Your task to perform on an android device: Check the news Image 0: 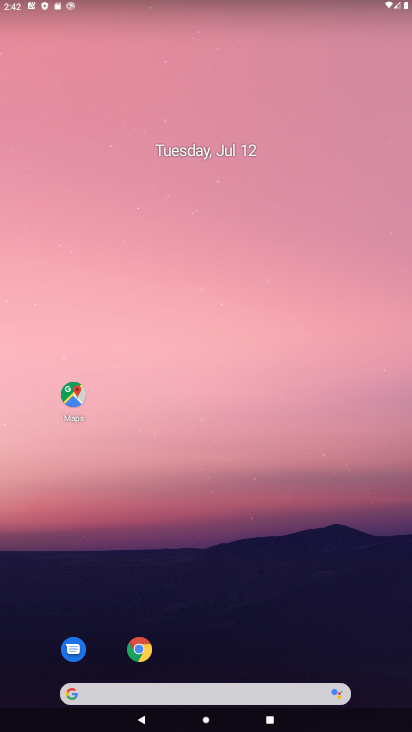
Step 0: click (186, 692)
Your task to perform on an android device: Check the news Image 1: 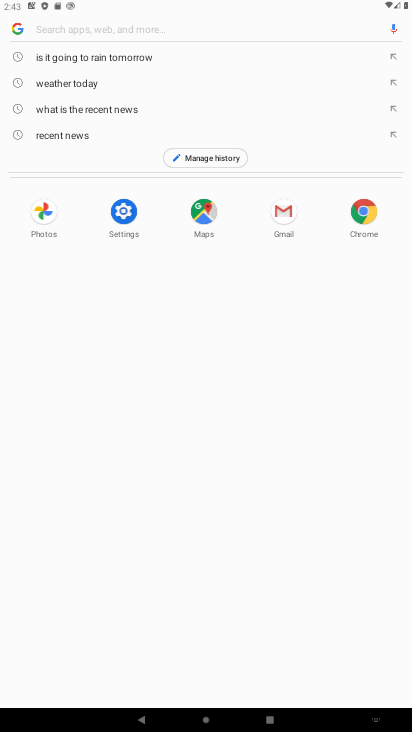
Step 1: click (93, 134)
Your task to perform on an android device: Check the news Image 2: 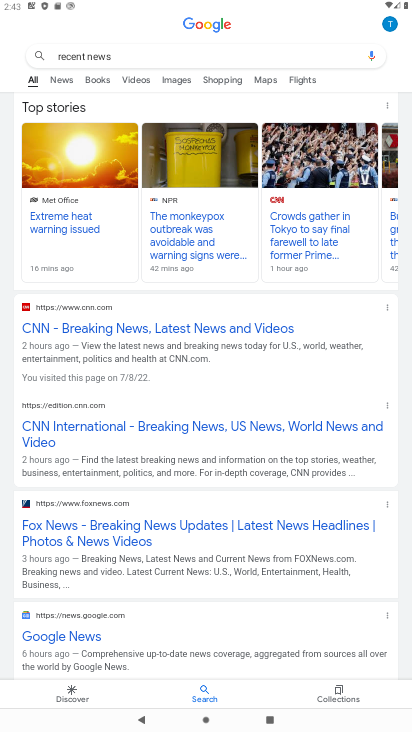
Step 2: task complete